Your task to perform on an android device: stop showing notifications on the lock screen Image 0: 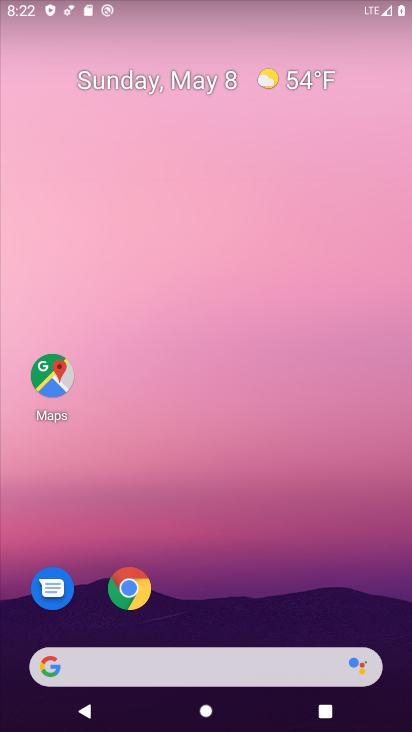
Step 0: drag from (44, 591) to (347, 189)
Your task to perform on an android device: stop showing notifications on the lock screen Image 1: 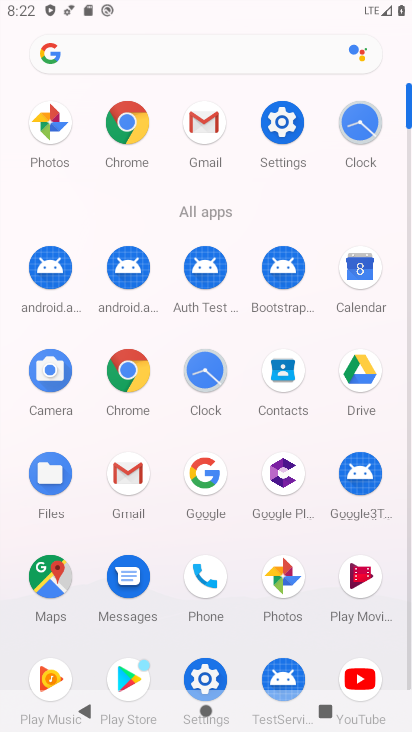
Step 1: click (290, 132)
Your task to perform on an android device: stop showing notifications on the lock screen Image 2: 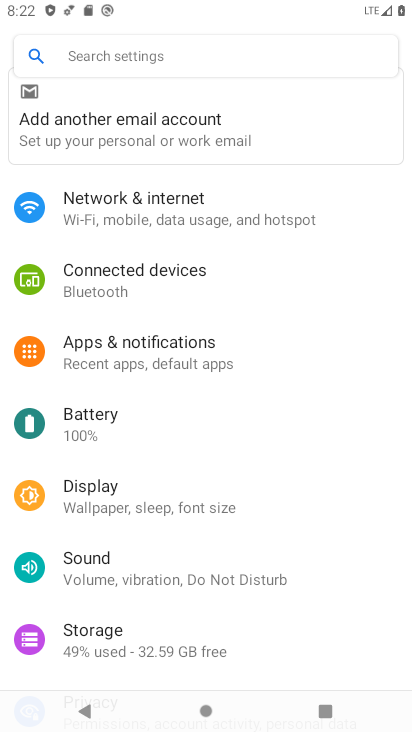
Step 2: click (245, 366)
Your task to perform on an android device: stop showing notifications on the lock screen Image 3: 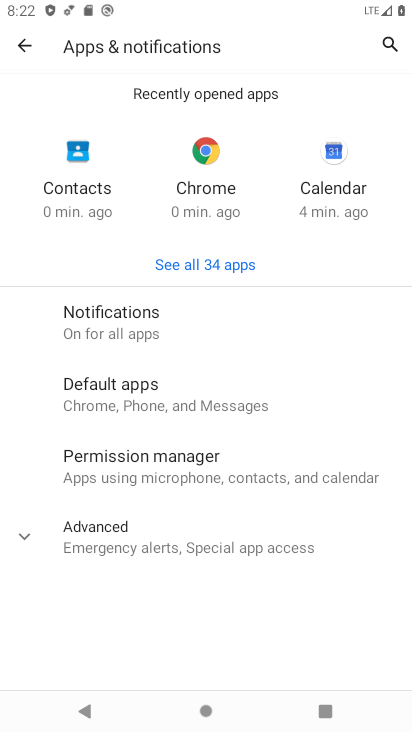
Step 3: click (245, 366)
Your task to perform on an android device: stop showing notifications on the lock screen Image 4: 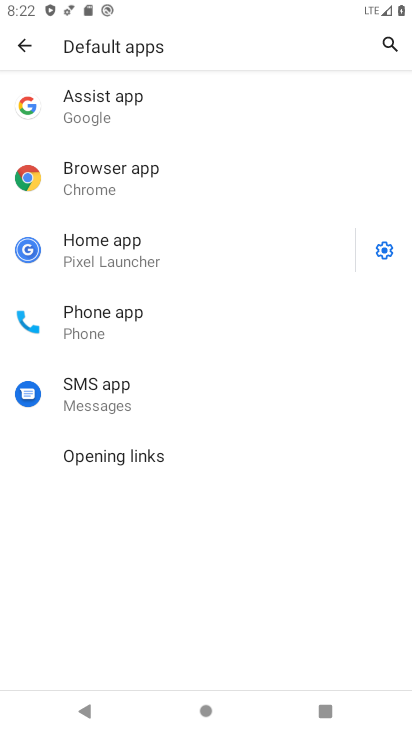
Step 4: press back button
Your task to perform on an android device: stop showing notifications on the lock screen Image 5: 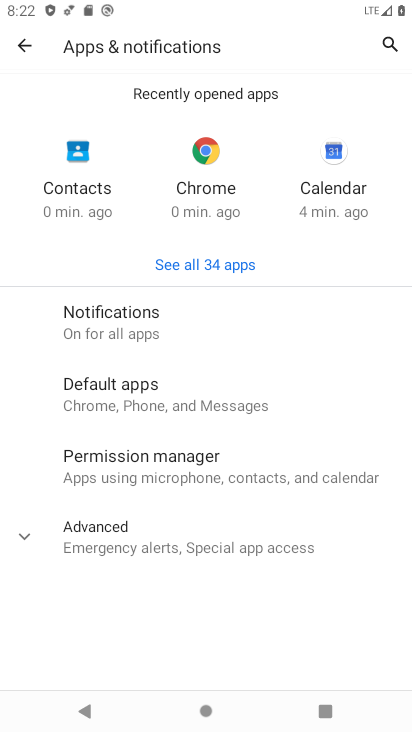
Step 5: click (95, 319)
Your task to perform on an android device: stop showing notifications on the lock screen Image 6: 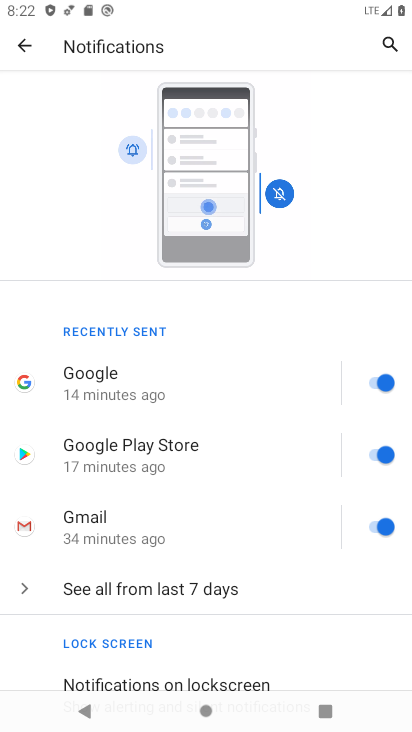
Step 6: drag from (196, 659) to (290, 367)
Your task to perform on an android device: stop showing notifications on the lock screen Image 7: 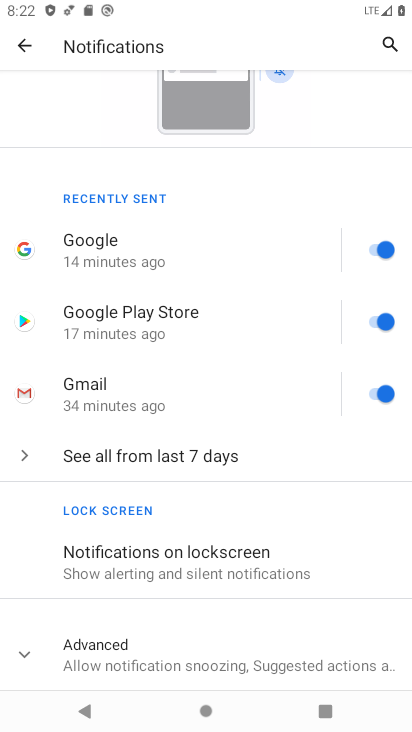
Step 7: click (211, 557)
Your task to perform on an android device: stop showing notifications on the lock screen Image 8: 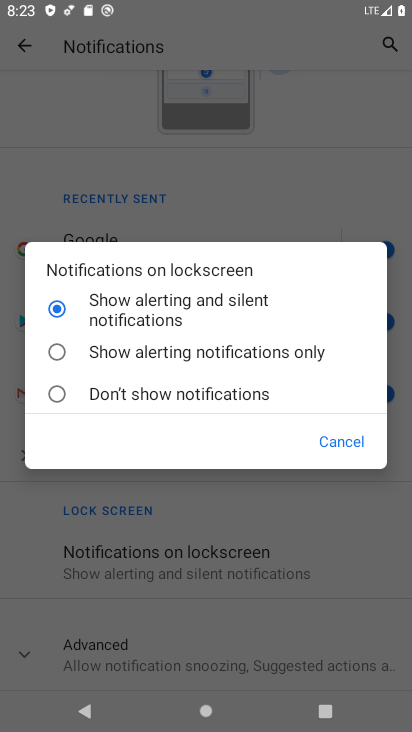
Step 8: click (157, 389)
Your task to perform on an android device: stop showing notifications on the lock screen Image 9: 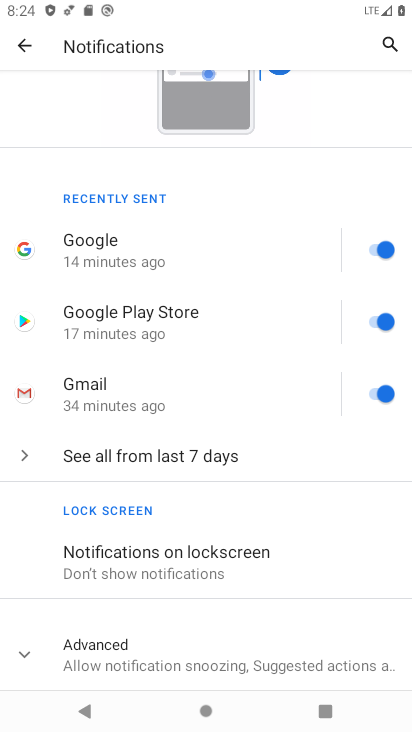
Step 9: task complete